Your task to perform on an android device: Go to ESPN.com Image 0: 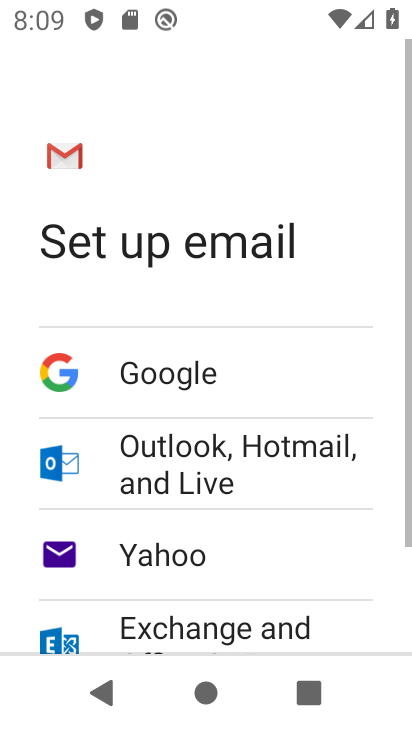
Step 0: drag from (267, 609) to (327, 277)
Your task to perform on an android device: Go to ESPN.com Image 1: 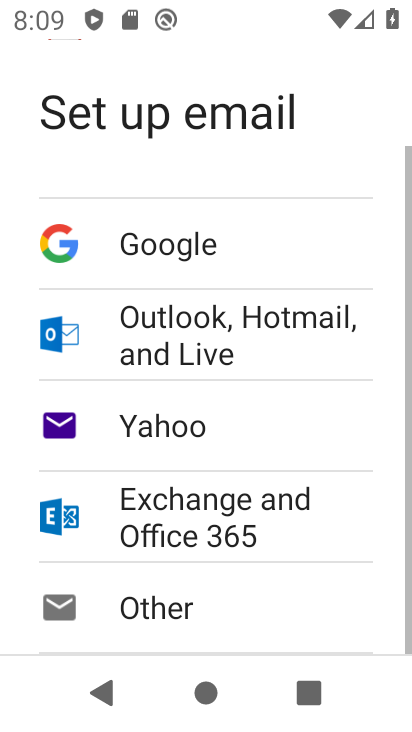
Step 1: press home button
Your task to perform on an android device: Go to ESPN.com Image 2: 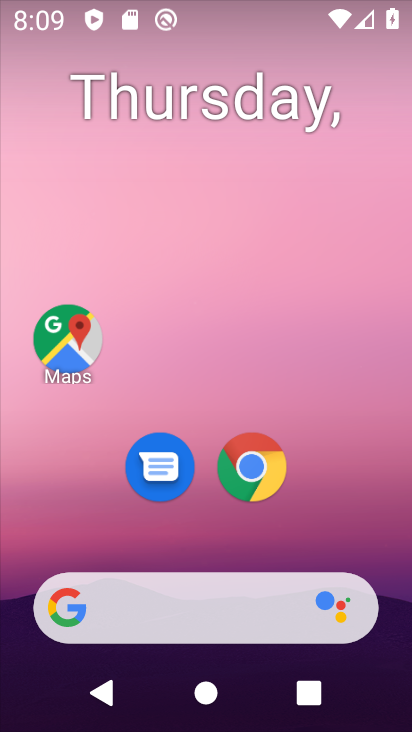
Step 2: click (252, 464)
Your task to perform on an android device: Go to ESPN.com Image 3: 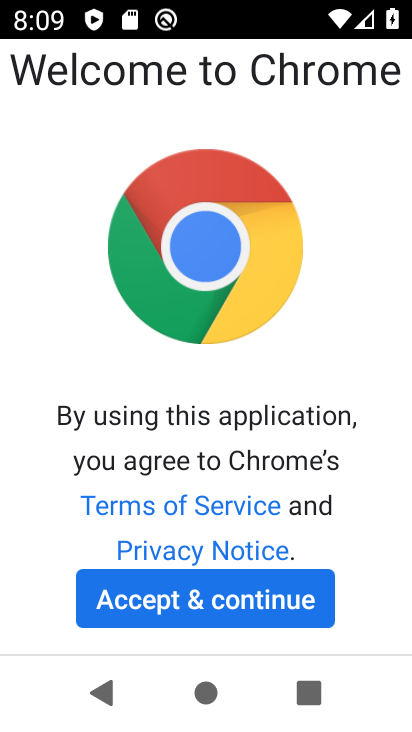
Step 3: click (202, 601)
Your task to perform on an android device: Go to ESPN.com Image 4: 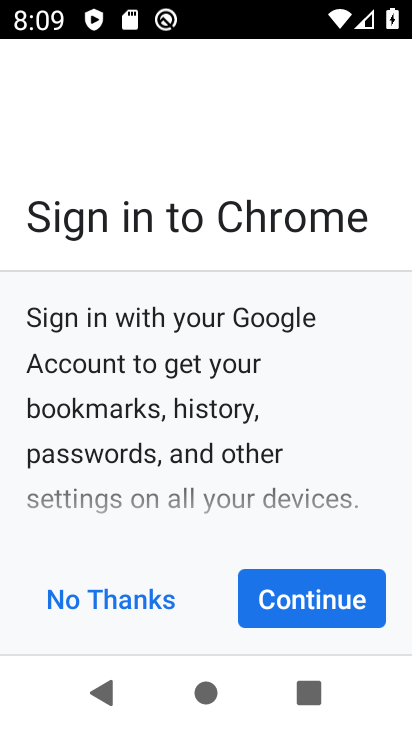
Step 4: click (310, 604)
Your task to perform on an android device: Go to ESPN.com Image 5: 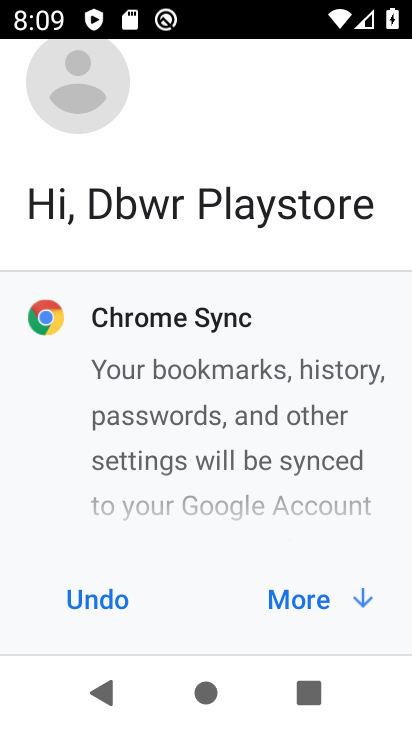
Step 5: click (310, 604)
Your task to perform on an android device: Go to ESPN.com Image 6: 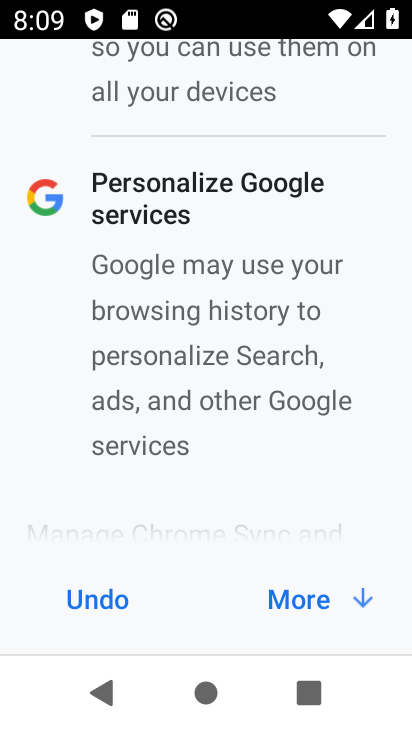
Step 6: click (299, 597)
Your task to perform on an android device: Go to ESPN.com Image 7: 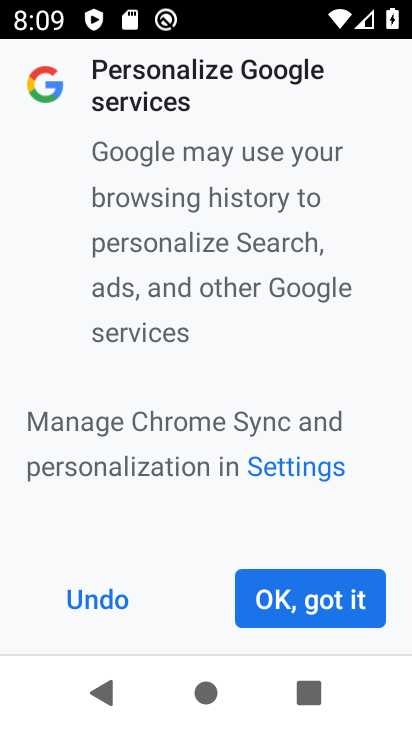
Step 7: click (299, 597)
Your task to perform on an android device: Go to ESPN.com Image 8: 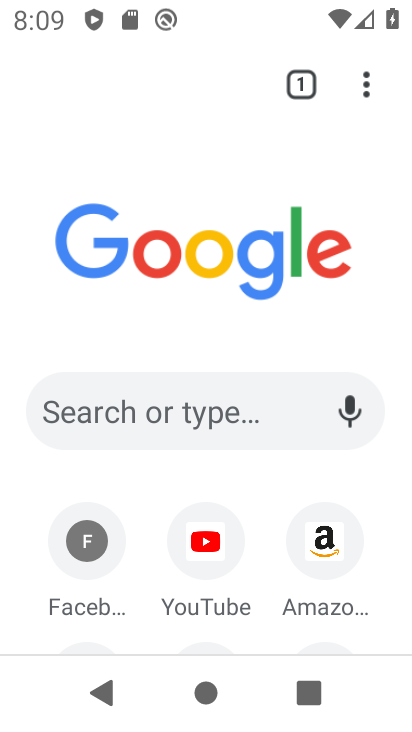
Step 8: drag from (188, 600) to (228, 349)
Your task to perform on an android device: Go to ESPN.com Image 9: 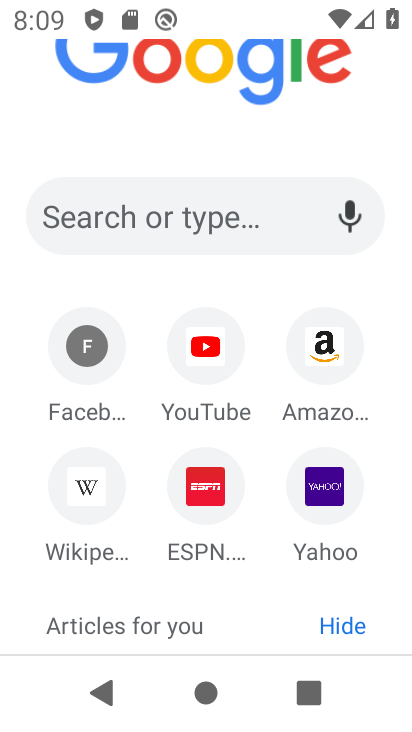
Step 9: click (198, 503)
Your task to perform on an android device: Go to ESPN.com Image 10: 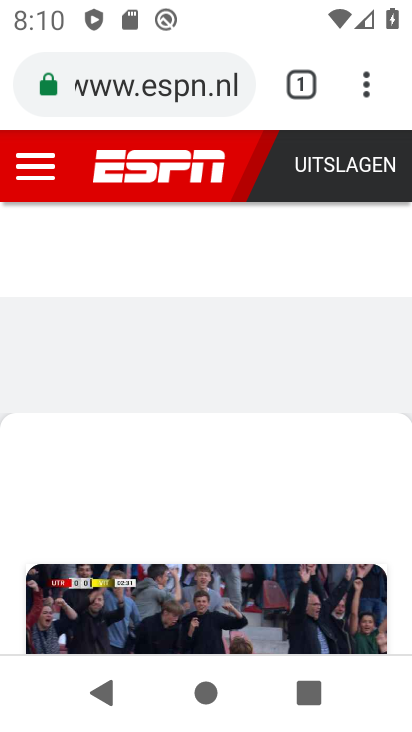
Step 10: task complete